Your task to perform on an android device: Go to eBay Image 0: 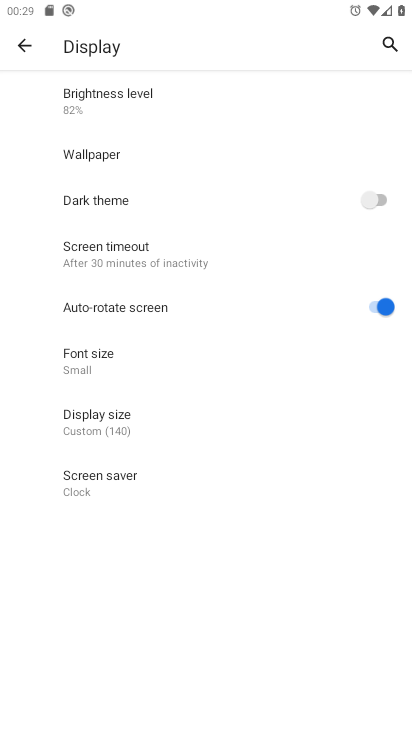
Step 0: press home button
Your task to perform on an android device: Go to eBay Image 1: 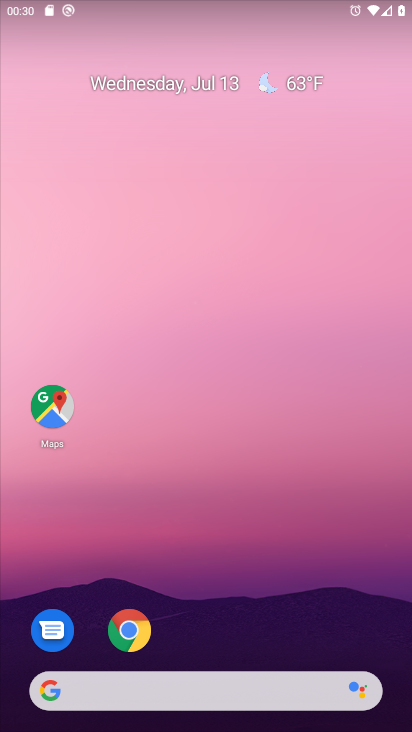
Step 1: click (133, 625)
Your task to perform on an android device: Go to eBay Image 2: 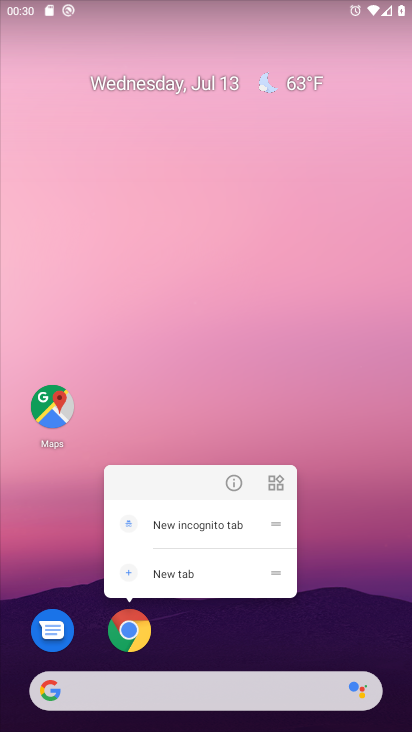
Step 2: click (133, 621)
Your task to perform on an android device: Go to eBay Image 3: 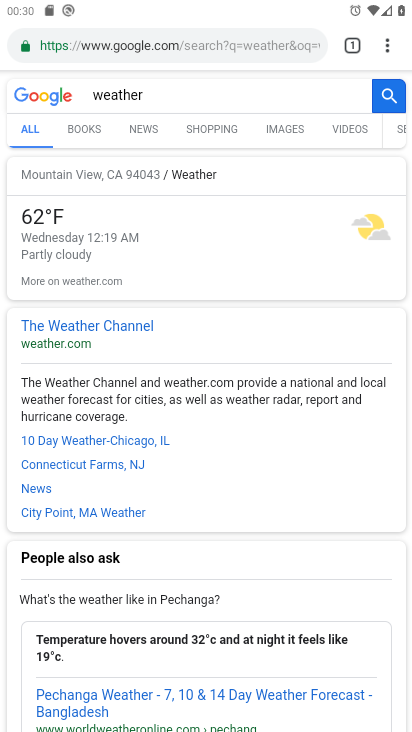
Step 3: click (161, 45)
Your task to perform on an android device: Go to eBay Image 4: 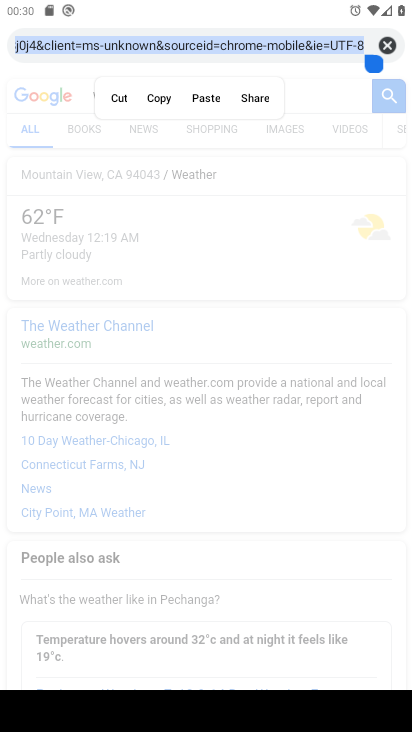
Step 4: type "ebay"
Your task to perform on an android device: Go to eBay Image 5: 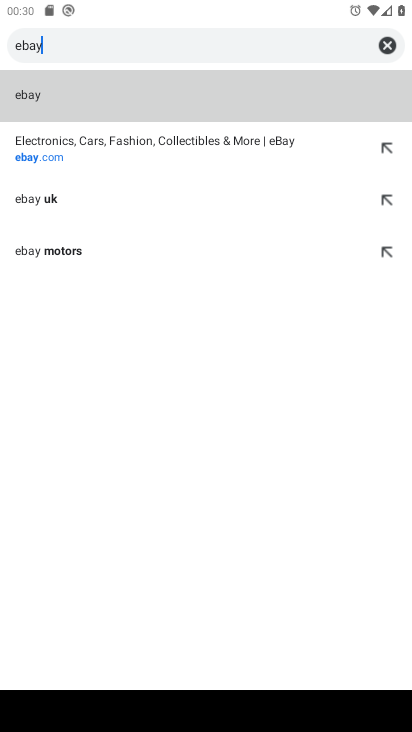
Step 5: click (59, 144)
Your task to perform on an android device: Go to eBay Image 6: 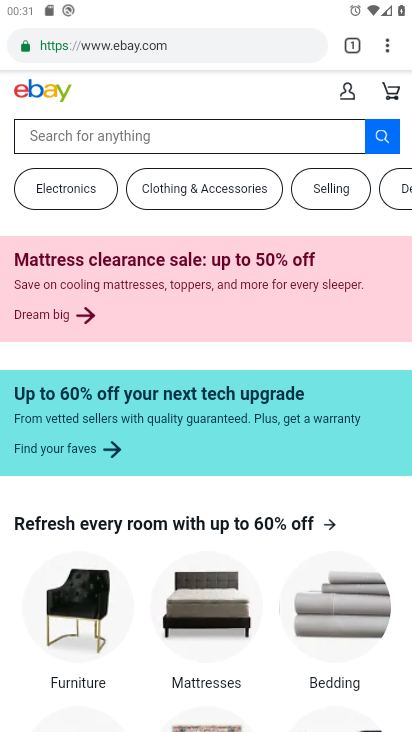
Step 6: task complete